Your task to perform on an android device: Open notification settings Image 0: 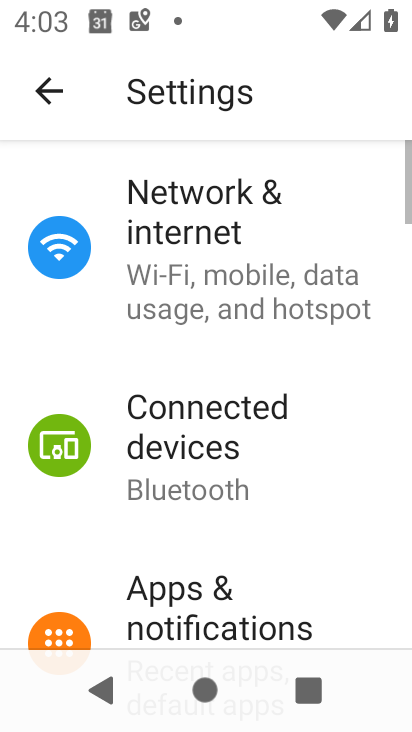
Step 0: click (216, 595)
Your task to perform on an android device: Open notification settings Image 1: 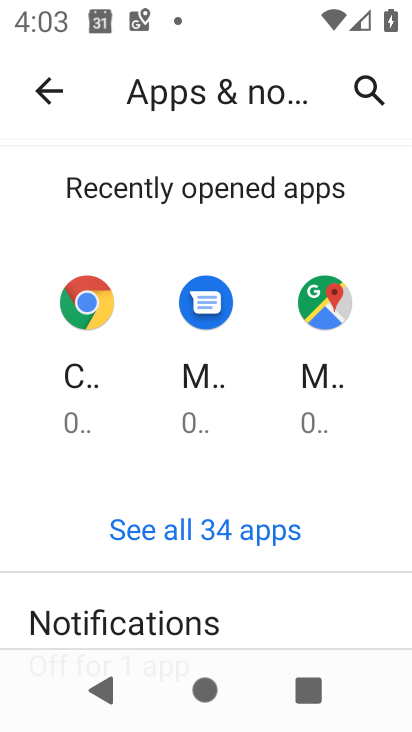
Step 1: click (220, 608)
Your task to perform on an android device: Open notification settings Image 2: 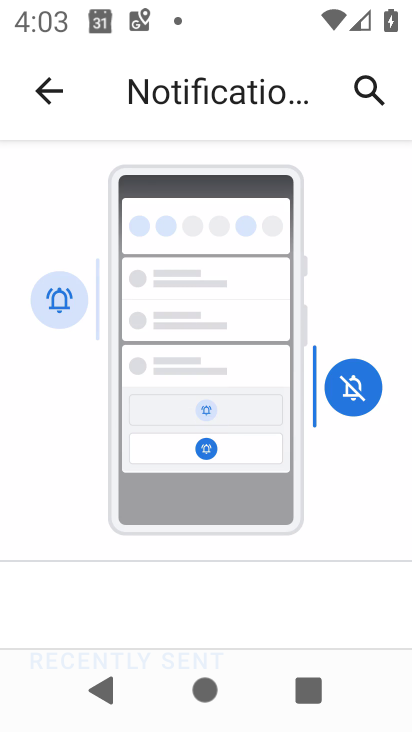
Step 2: task complete